Your task to perform on an android device: check battery use Image 0: 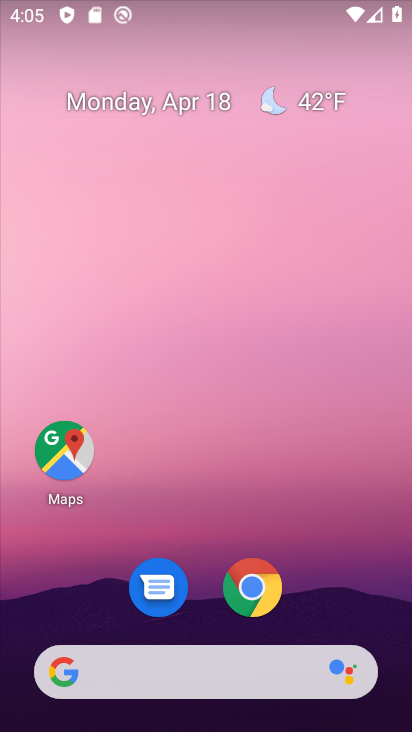
Step 0: drag from (229, 475) to (283, 202)
Your task to perform on an android device: check battery use Image 1: 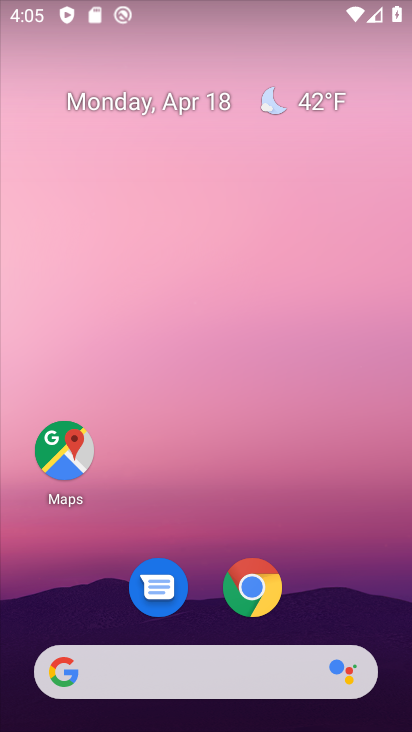
Step 1: drag from (196, 545) to (286, 93)
Your task to perform on an android device: check battery use Image 2: 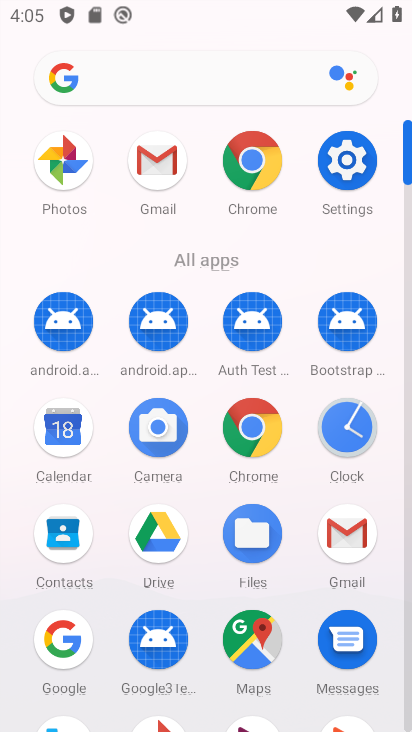
Step 2: click (350, 158)
Your task to perform on an android device: check battery use Image 3: 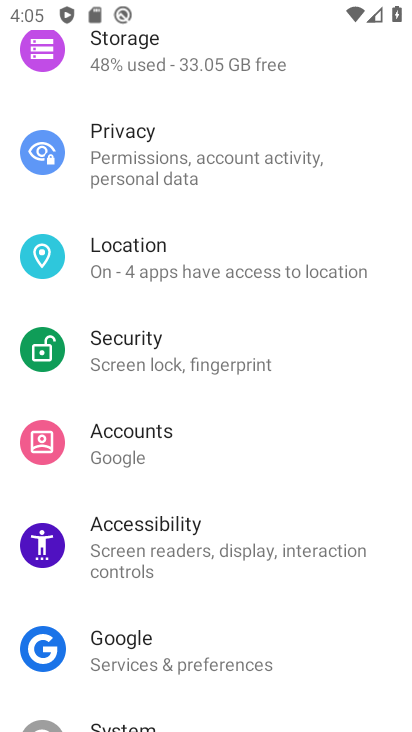
Step 3: drag from (203, 158) to (205, 559)
Your task to perform on an android device: check battery use Image 4: 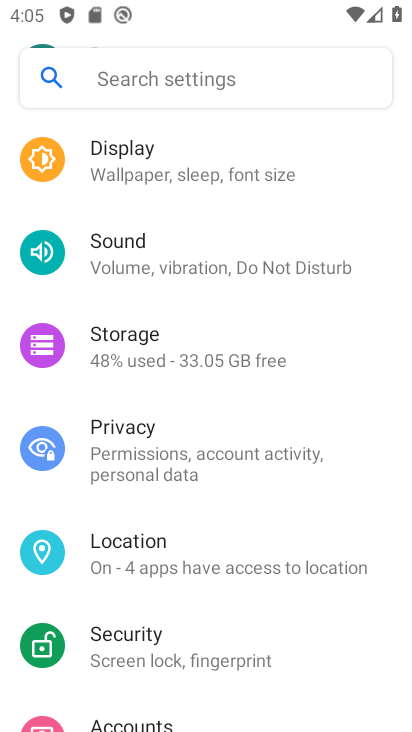
Step 4: drag from (214, 277) to (211, 543)
Your task to perform on an android device: check battery use Image 5: 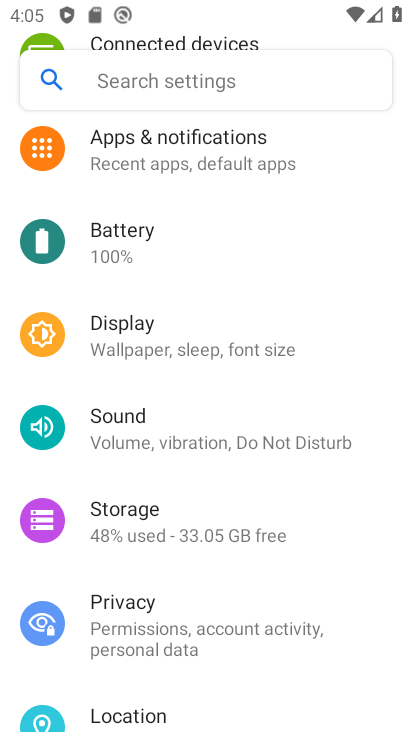
Step 5: drag from (235, 209) to (231, 369)
Your task to perform on an android device: check battery use Image 6: 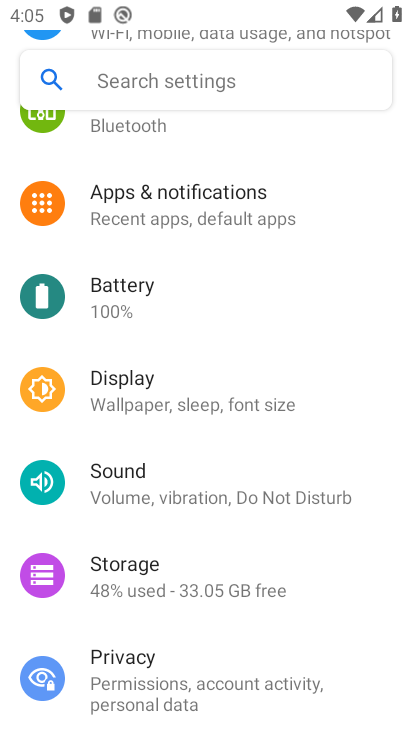
Step 6: click (203, 307)
Your task to perform on an android device: check battery use Image 7: 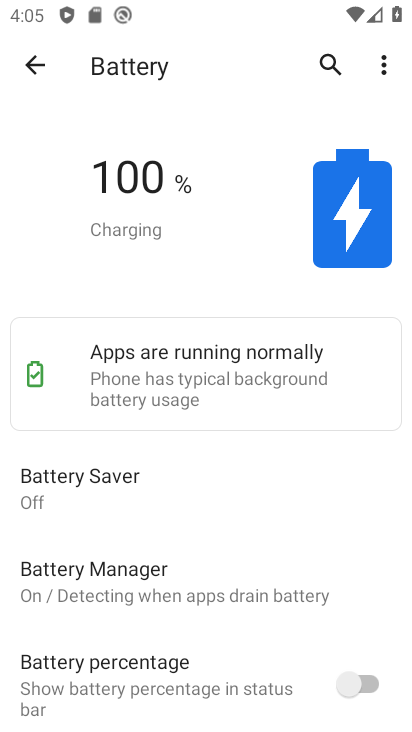
Step 7: click (388, 75)
Your task to perform on an android device: check battery use Image 8: 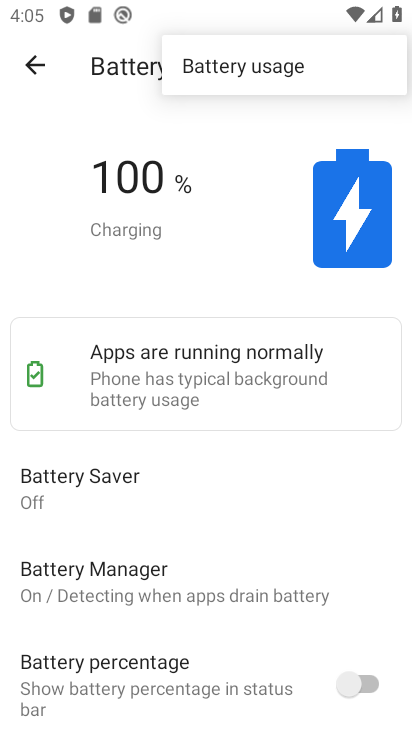
Step 8: click (368, 67)
Your task to perform on an android device: check battery use Image 9: 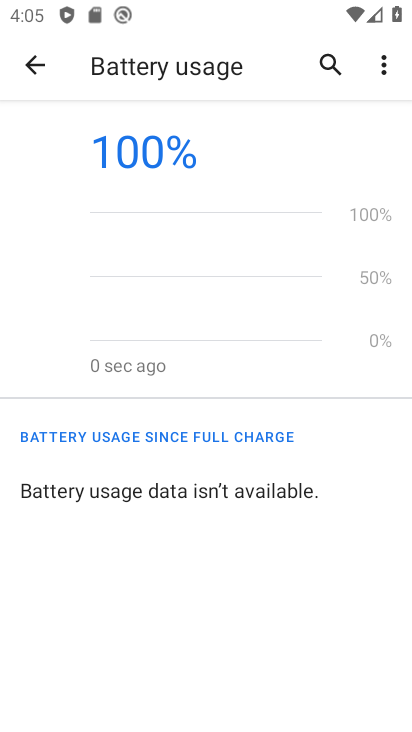
Step 9: task complete